Your task to perform on an android device: toggle translation in the chrome app Image 0: 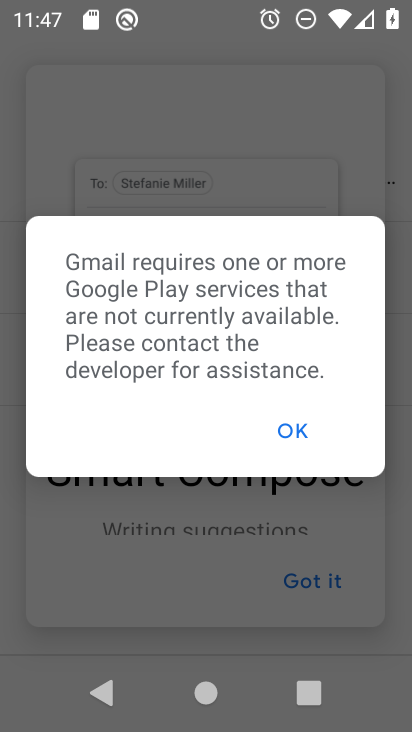
Step 0: press home button
Your task to perform on an android device: toggle translation in the chrome app Image 1: 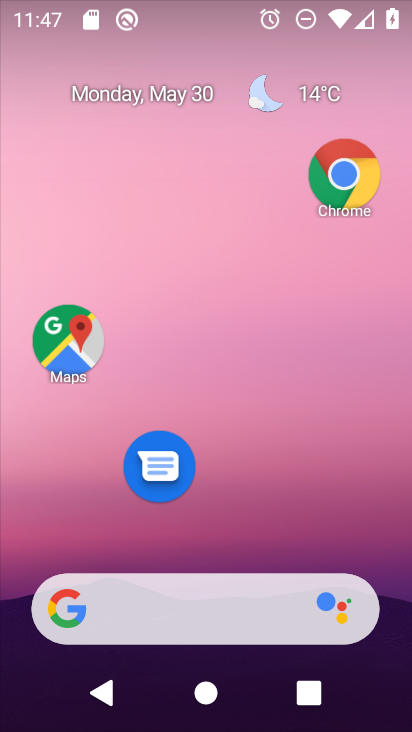
Step 1: click (343, 183)
Your task to perform on an android device: toggle translation in the chrome app Image 2: 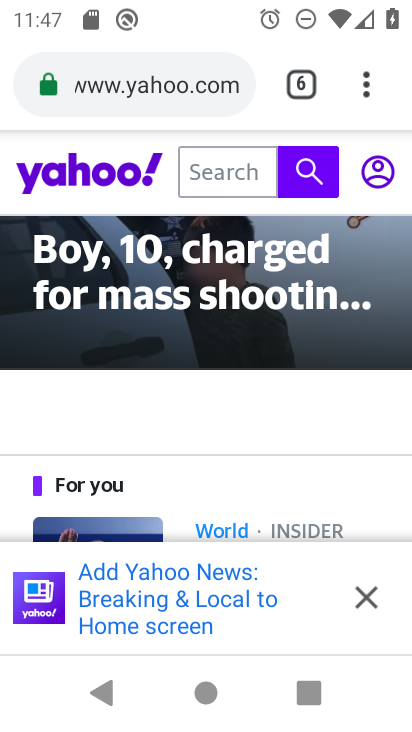
Step 2: click (368, 75)
Your task to perform on an android device: toggle translation in the chrome app Image 3: 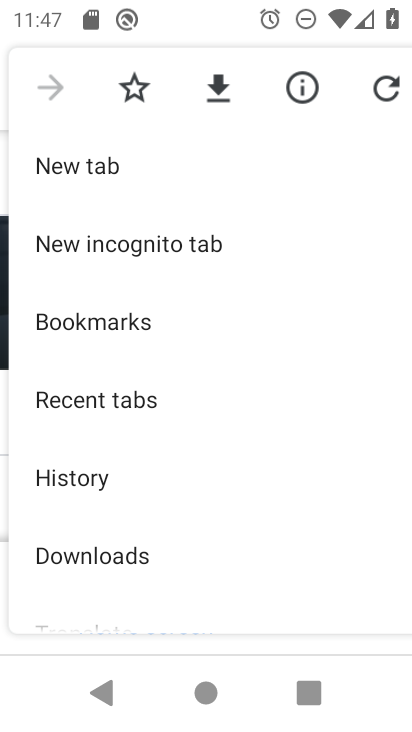
Step 3: drag from (163, 554) to (183, 227)
Your task to perform on an android device: toggle translation in the chrome app Image 4: 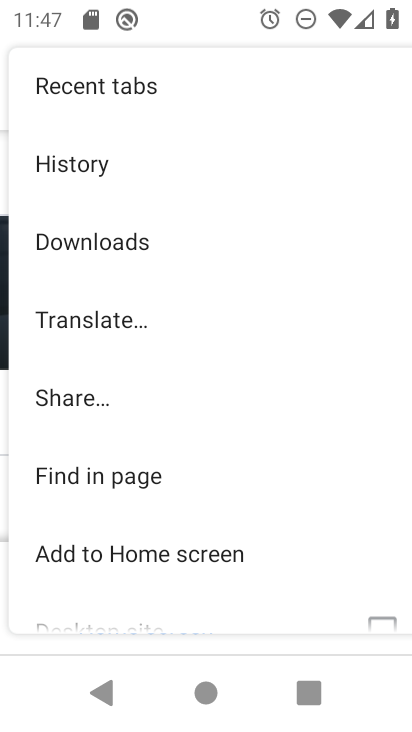
Step 4: click (155, 318)
Your task to perform on an android device: toggle translation in the chrome app Image 5: 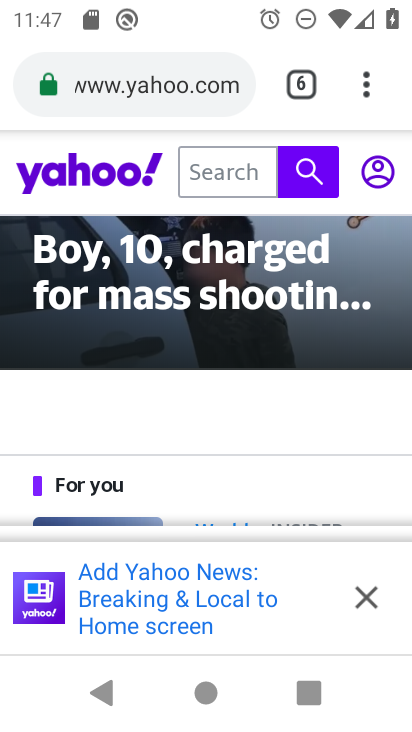
Step 5: click (363, 590)
Your task to perform on an android device: toggle translation in the chrome app Image 6: 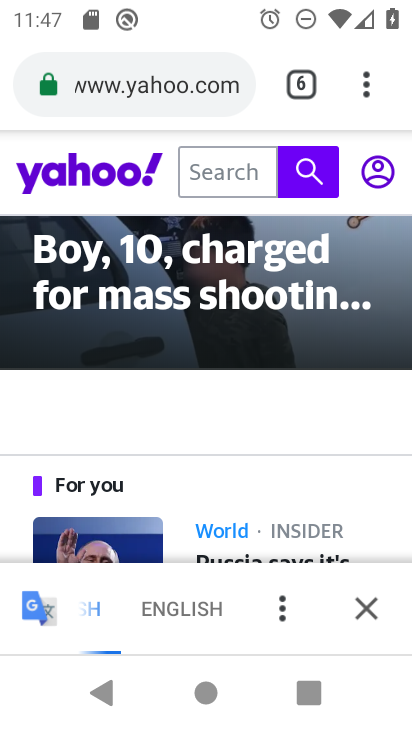
Step 6: click (182, 610)
Your task to perform on an android device: toggle translation in the chrome app Image 7: 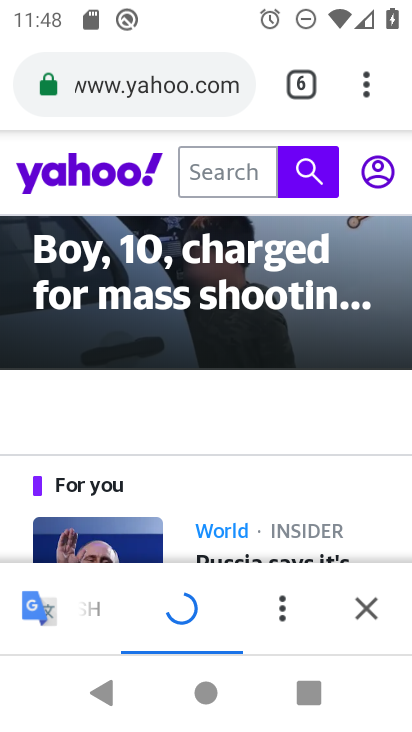
Step 7: click (280, 593)
Your task to perform on an android device: toggle translation in the chrome app Image 8: 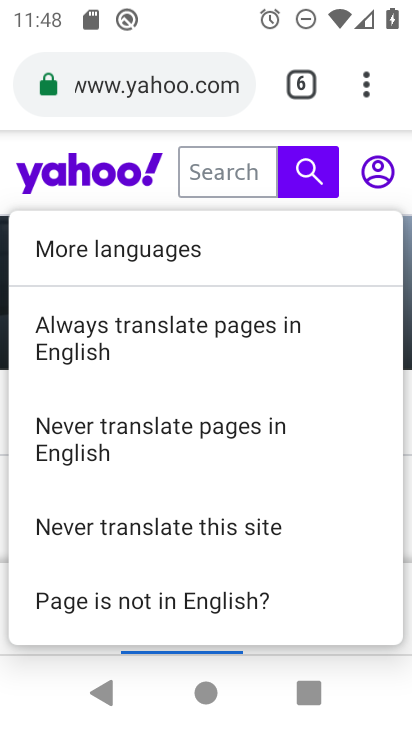
Step 8: click (134, 592)
Your task to perform on an android device: toggle translation in the chrome app Image 9: 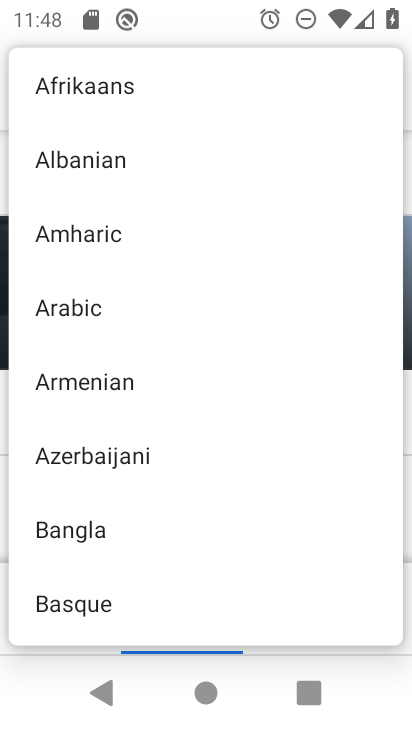
Step 9: drag from (128, 506) to (126, 117)
Your task to perform on an android device: toggle translation in the chrome app Image 10: 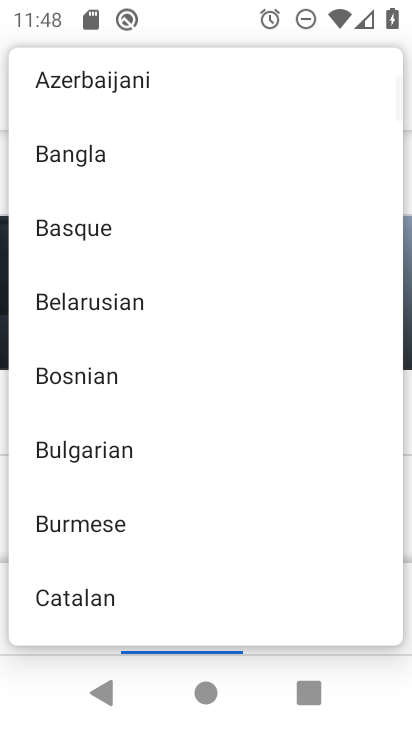
Step 10: drag from (185, 551) to (249, 196)
Your task to perform on an android device: toggle translation in the chrome app Image 11: 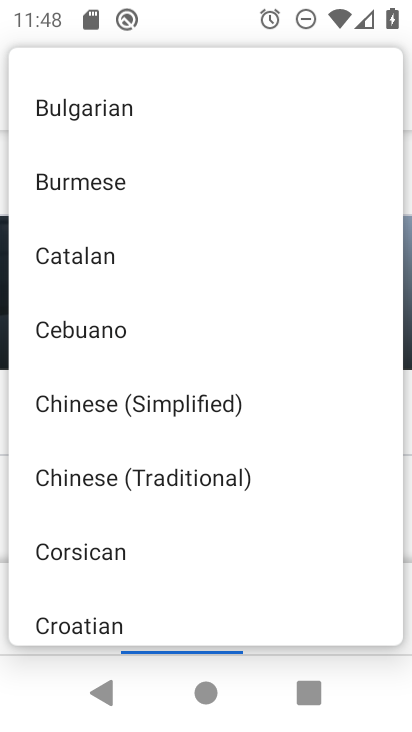
Step 11: drag from (221, 519) to (262, 137)
Your task to perform on an android device: toggle translation in the chrome app Image 12: 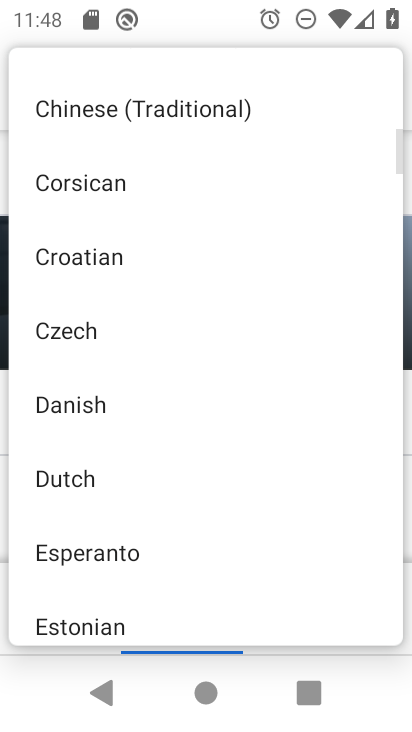
Step 12: drag from (223, 542) to (225, 95)
Your task to perform on an android device: toggle translation in the chrome app Image 13: 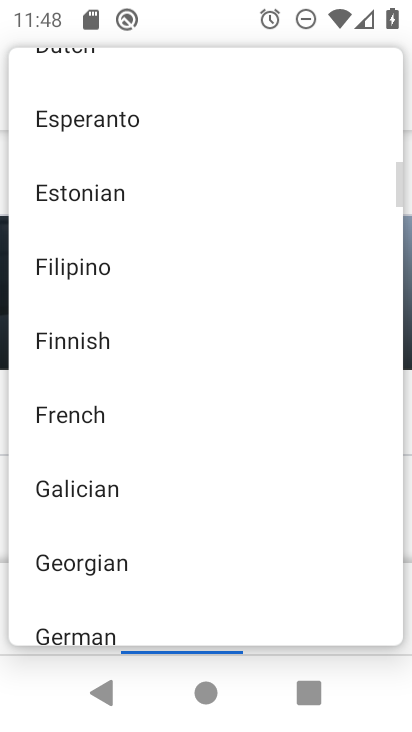
Step 13: drag from (224, 517) to (222, 103)
Your task to perform on an android device: toggle translation in the chrome app Image 14: 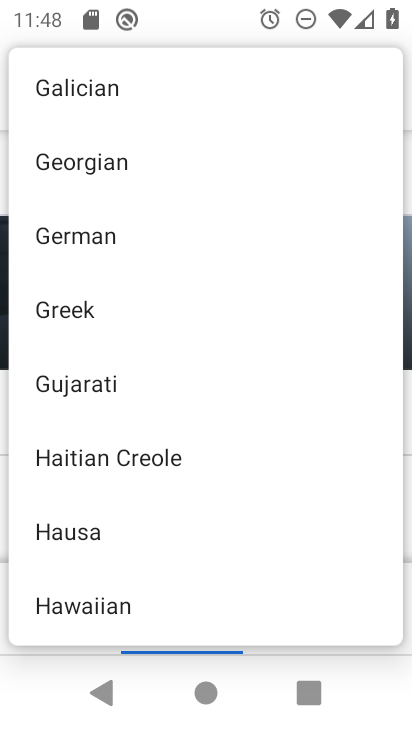
Step 14: drag from (157, 553) to (209, 276)
Your task to perform on an android device: toggle translation in the chrome app Image 15: 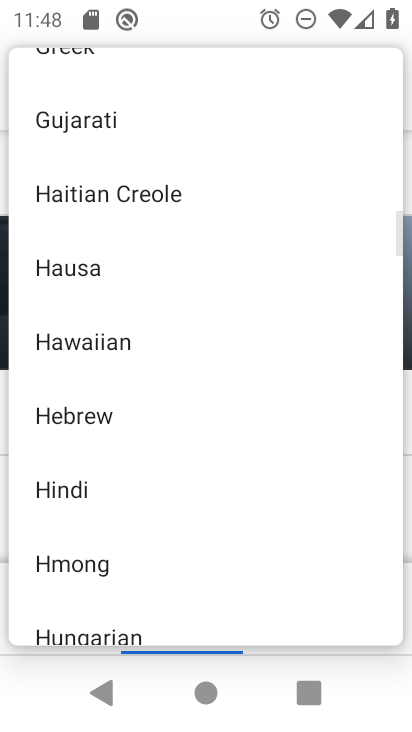
Step 15: click (97, 496)
Your task to perform on an android device: toggle translation in the chrome app Image 16: 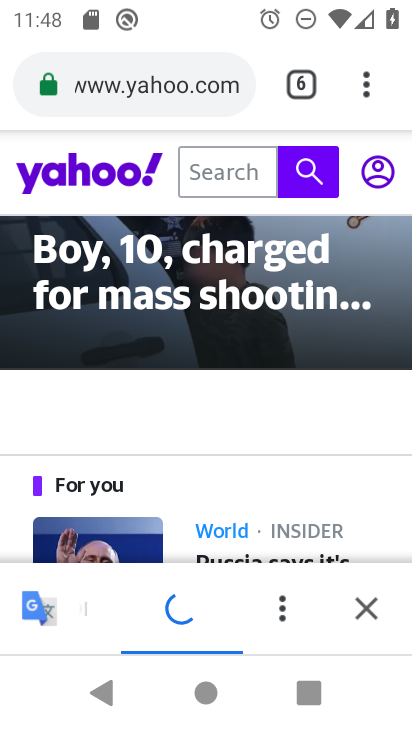
Step 16: task complete